Your task to perform on an android device: install app "Booking.com: Hotels and more" Image 0: 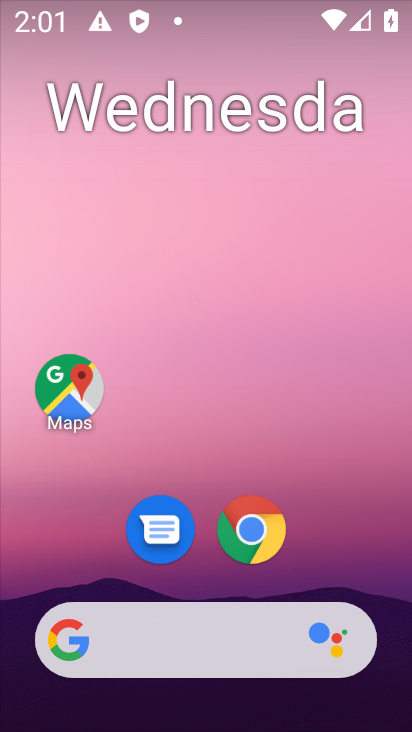
Step 0: drag from (198, 619) to (175, 68)
Your task to perform on an android device: install app "Booking.com: Hotels and more" Image 1: 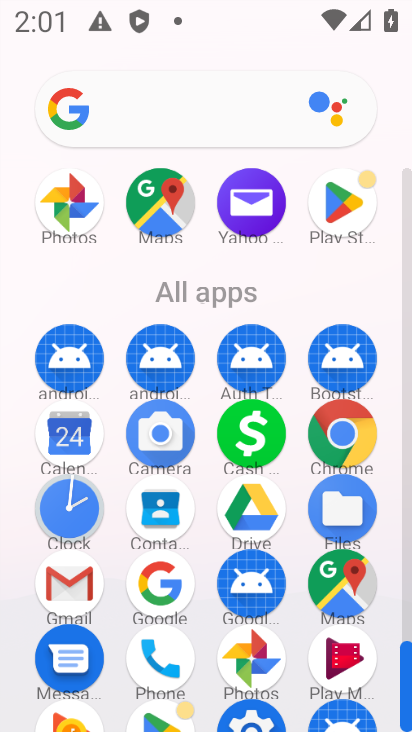
Step 1: click (351, 194)
Your task to perform on an android device: install app "Booking.com: Hotels and more" Image 2: 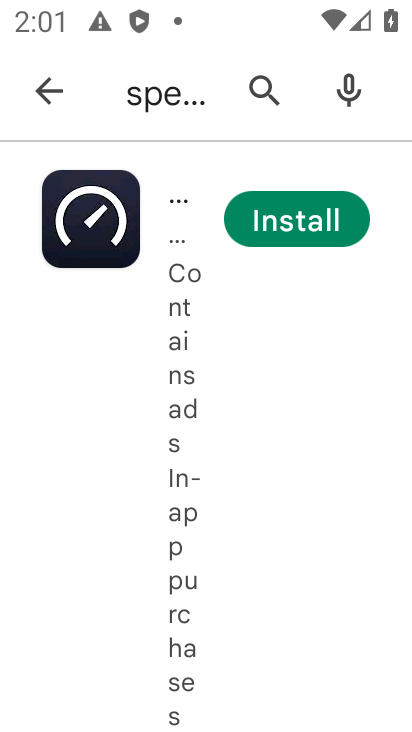
Step 2: click (259, 98)
Your task to perform on an android device: install app "Booking.com: Hotels and more" Image 3: 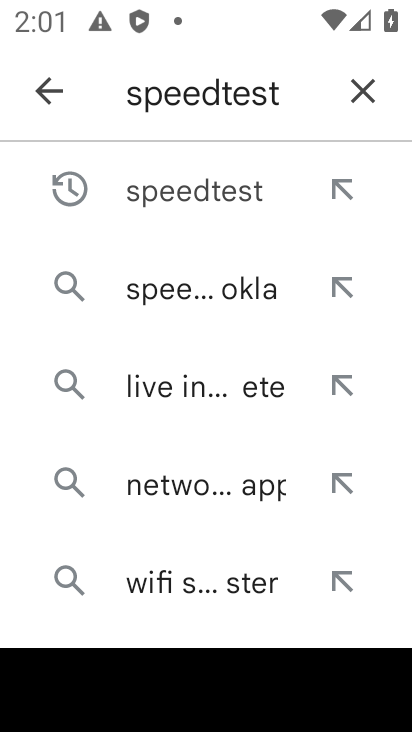
Step 3: click (346, 90)
Your task to perform on an android device: install app "Booking.com: Hotels and more" Image 4: 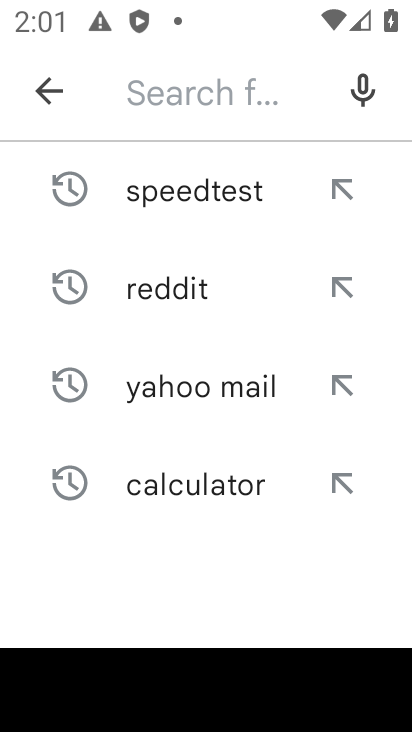
Step 4: type "booking.com"
Your task to perform on an android device: install app "Booking.com: Hotels and more" Image 5: 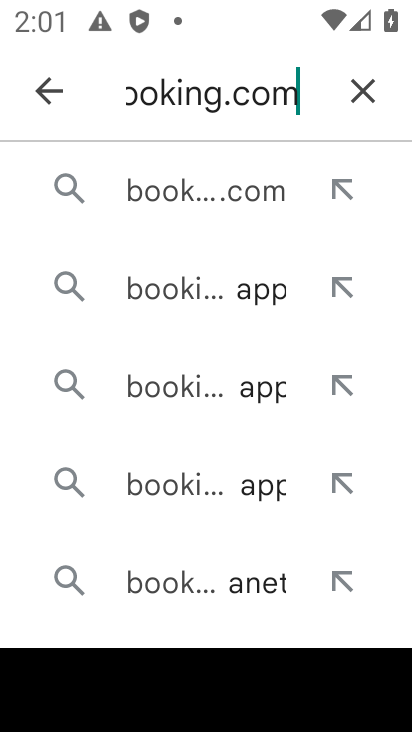
Step 5: click (194, 181)
Your task to perform on an android device: install app "Booking.com: Hotels and more" Image 6: 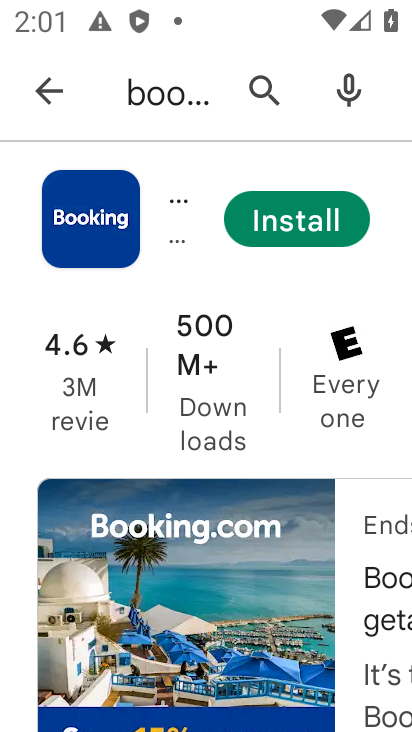
Step 6: click (281, 235)
Your task to perform on an android device: install app "Booking.com: Hotels and more" Image 7: 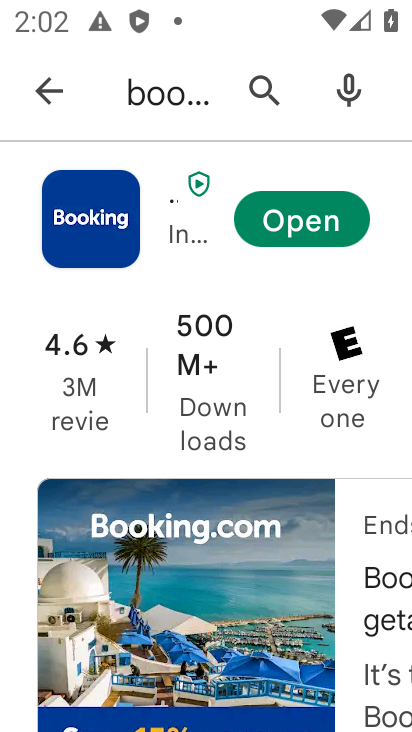
Step 7: task complete